Your task to perform on an android device: Add "rayovac triple a" to the cart on newegg Image 0: 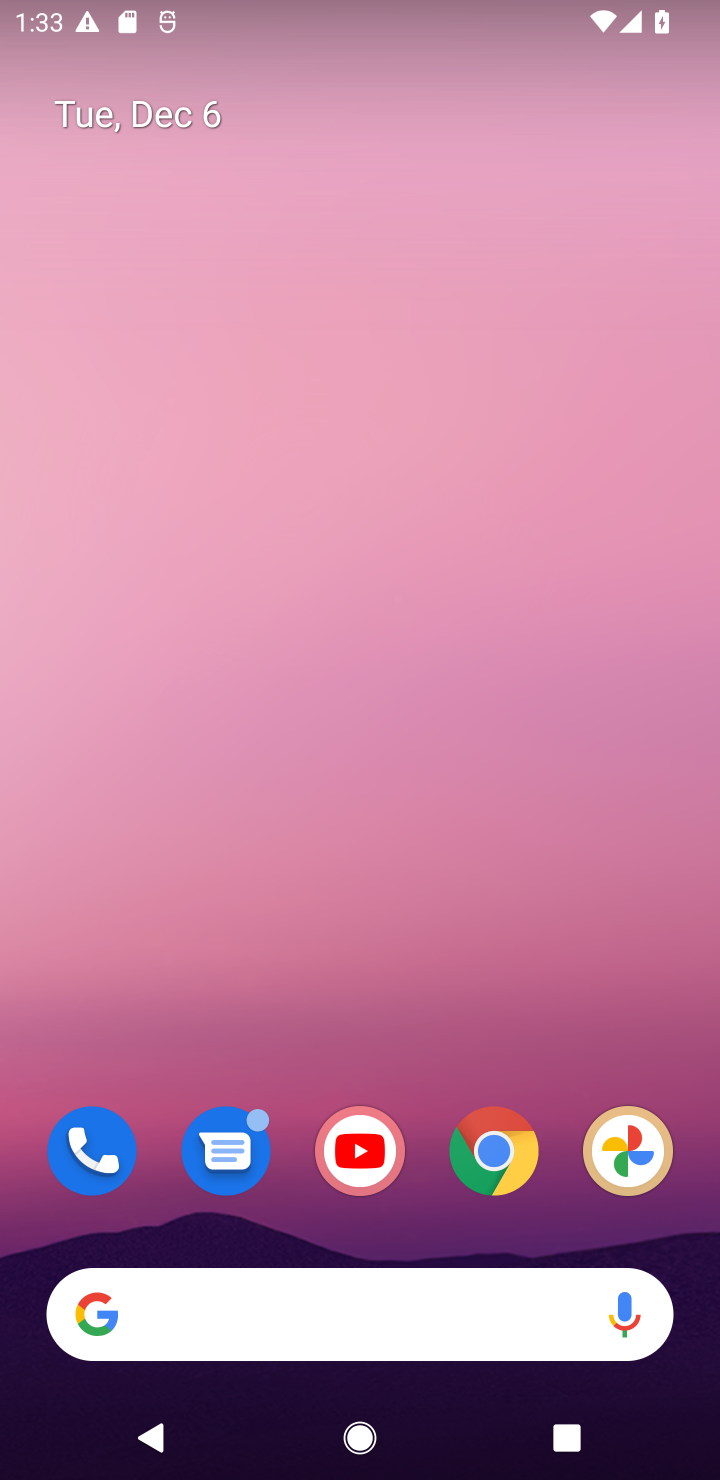
Step 0: click (503, 1140)
Your task to perform on an android device: Add "rayovac triple a" to the cart on newegg Image 1: 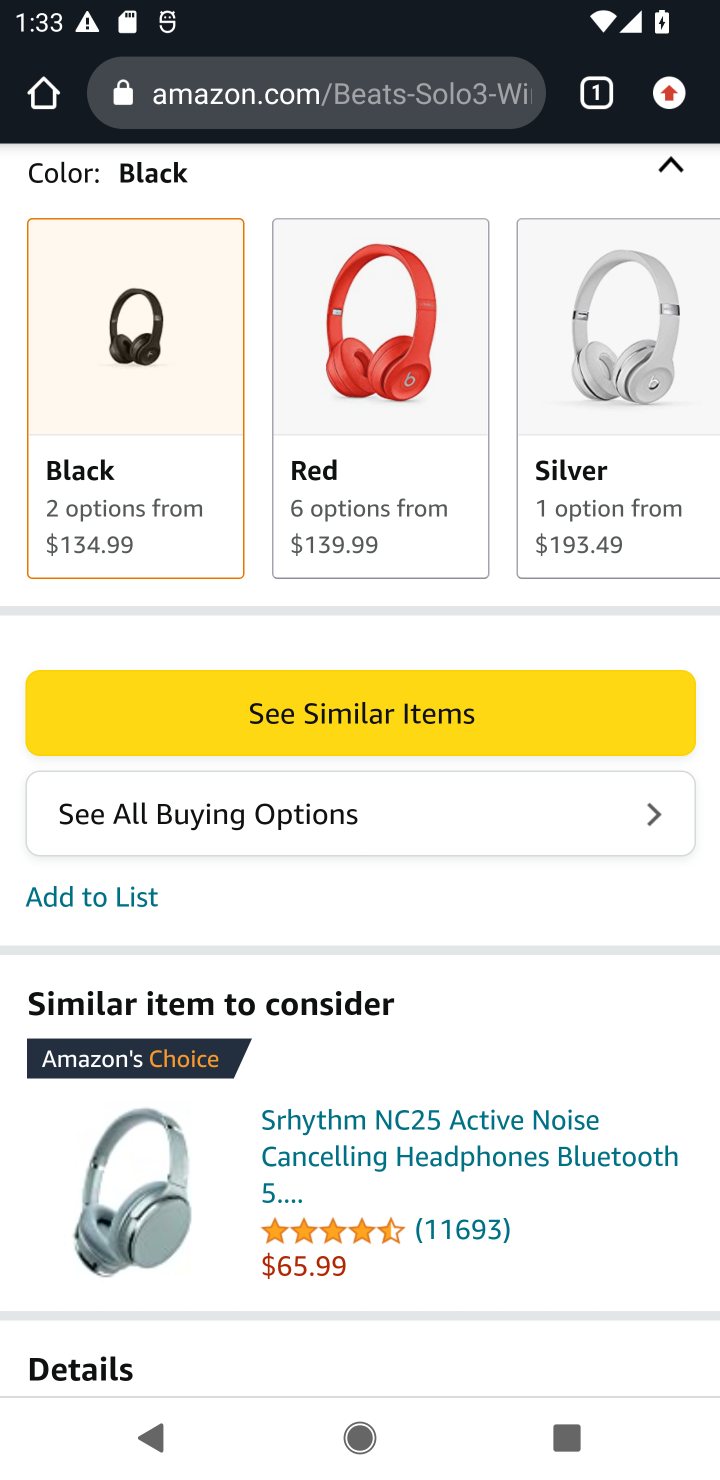
Step 1: click (271, 106)
Your task to perform on an android device: Add "rayovac triple a" to the cart on newegg Image 2: 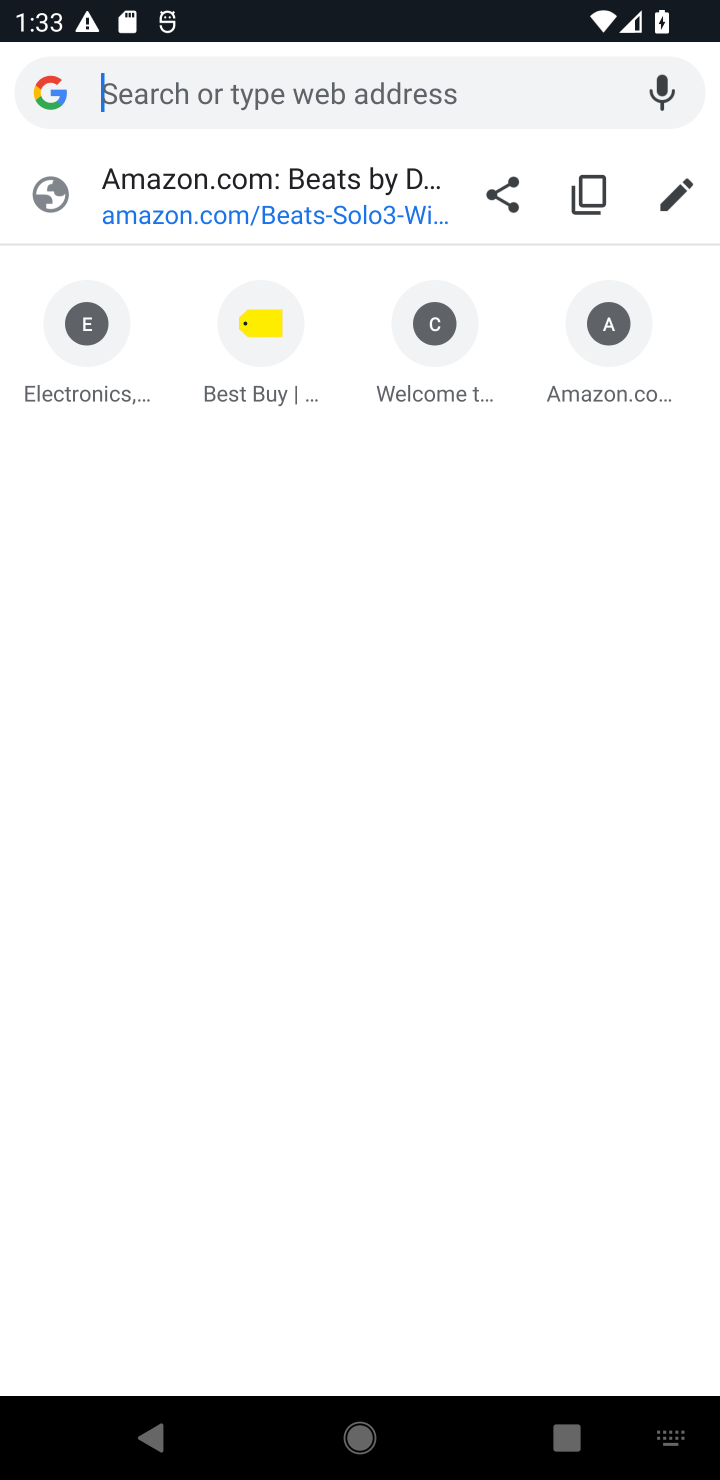
Step 2: type "newegg.com"
Your task to perform on an android device: Add "rayovac triple a" to the cart on newegg Image 3: 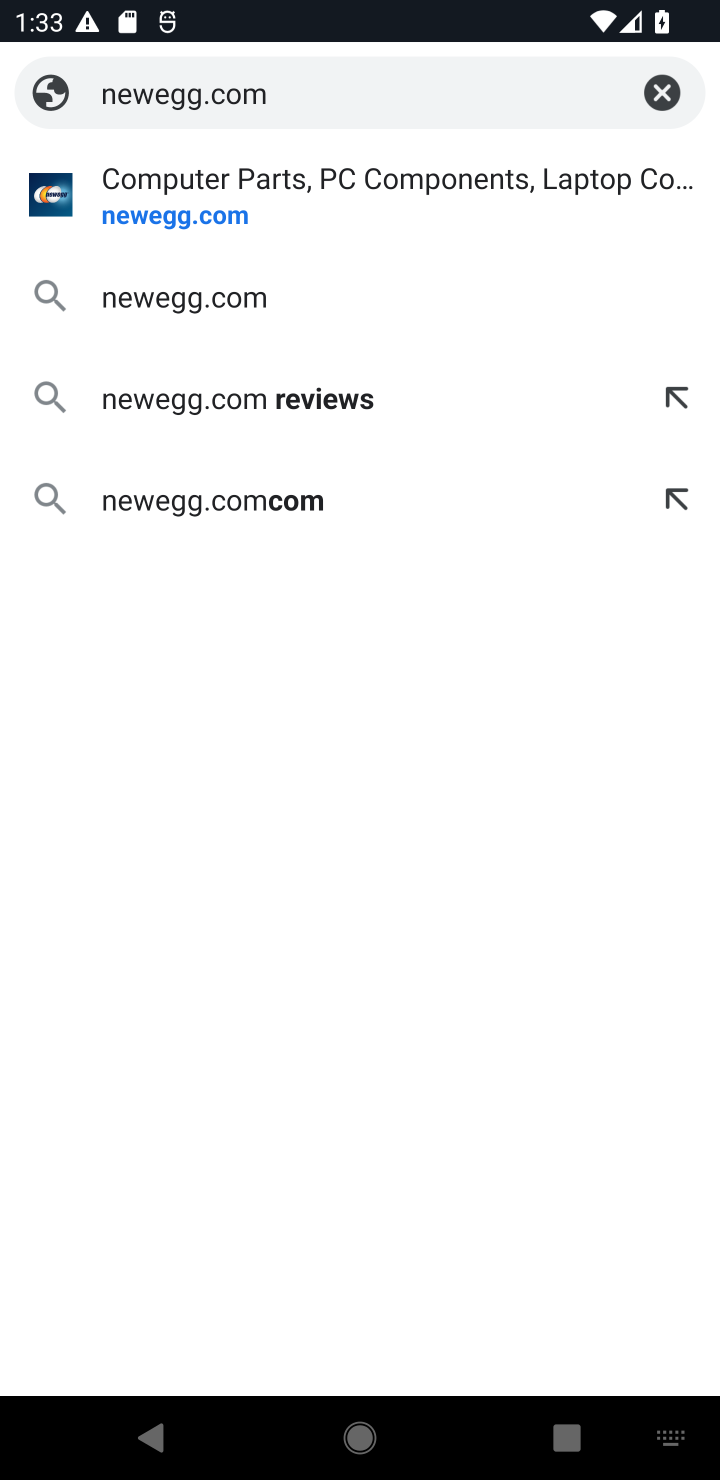
Step 3: click (164, 226)
Your task to perform on an android device: Add "rayovac triple a" to the cart on newegg Image 4: 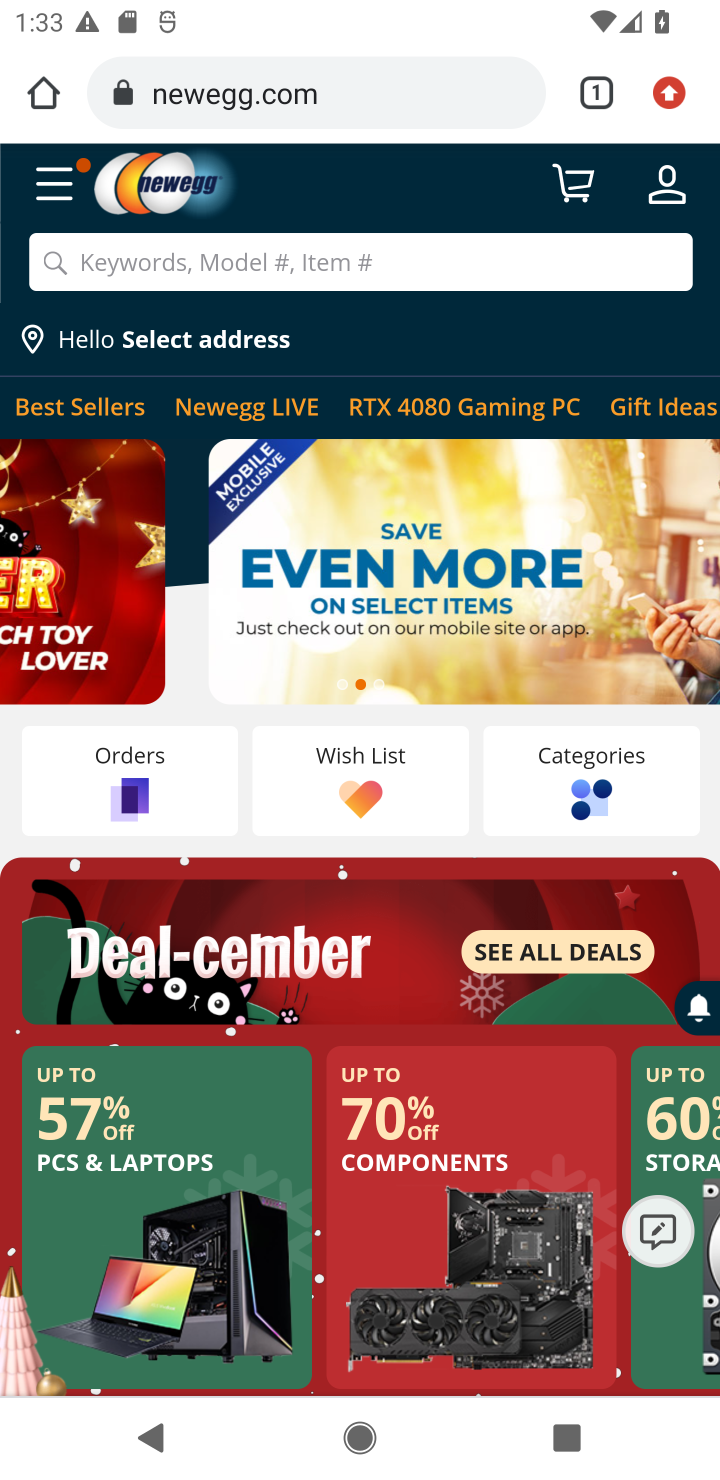
Step 4: click (266, 273)
Your task to perform on an android device: Add "rayovac triple a" to the cart on newegg Image 5: 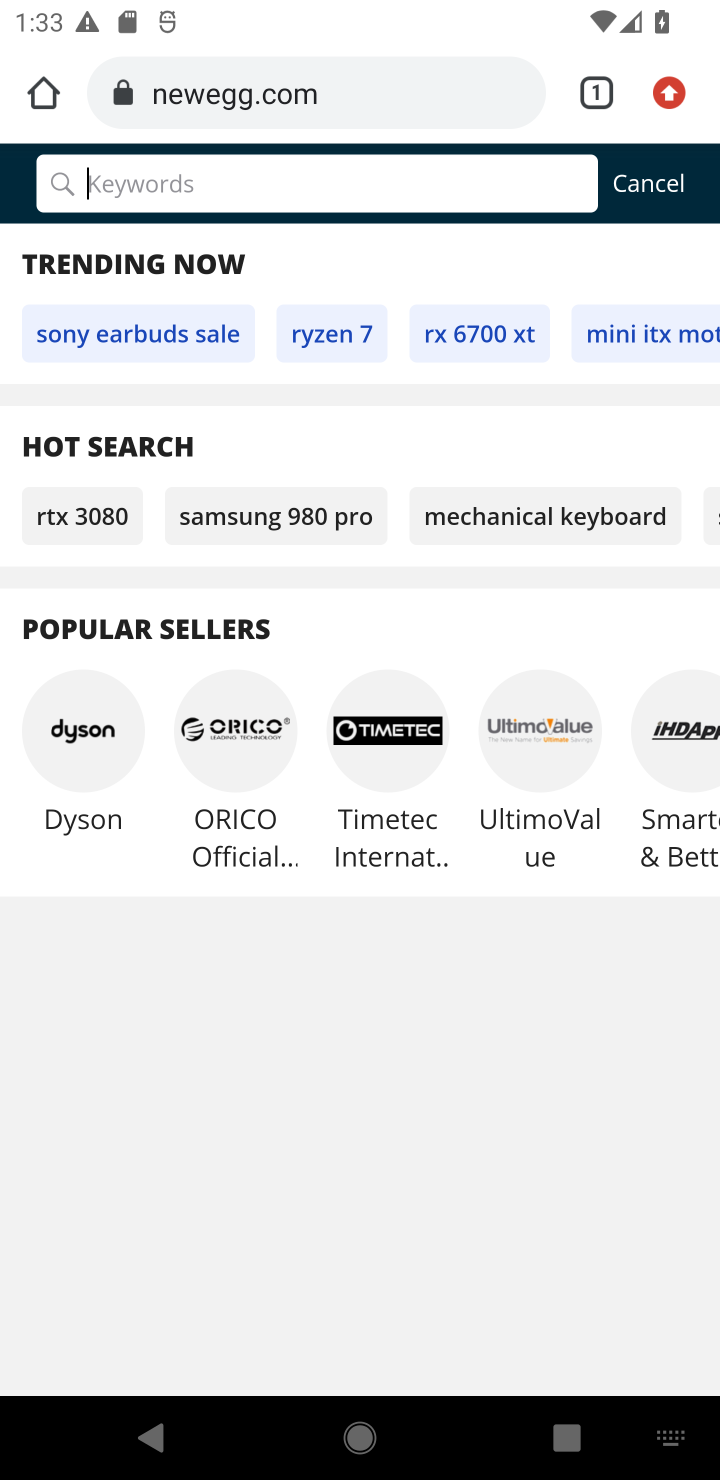
Step 5: type "rayovac triple a"
Your task to perform on an android device: Add "rayovac triple a" to the cart on newegg Image 6: 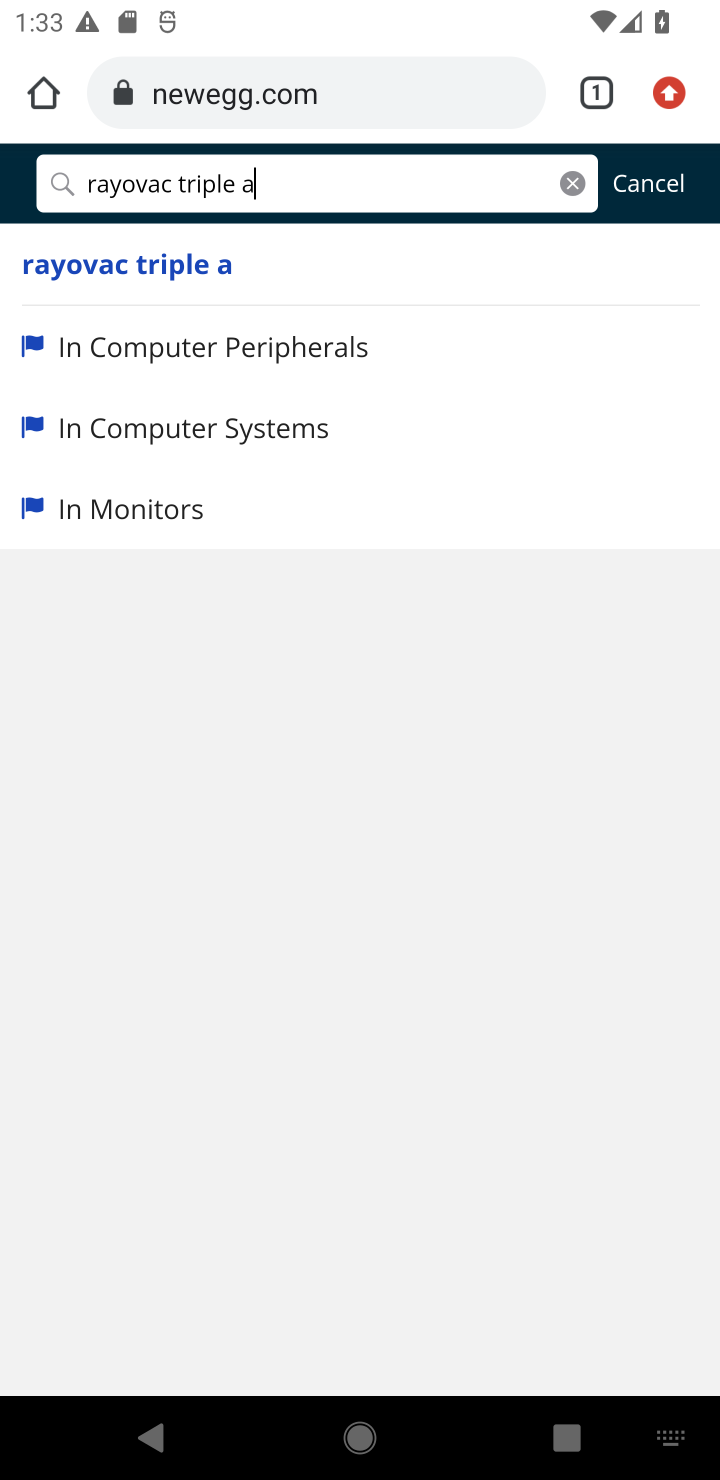
Step 6: click (153, 277)
Your task to perform on an android device: Add "rayovac triple a" to the cart on newegg Image 7: 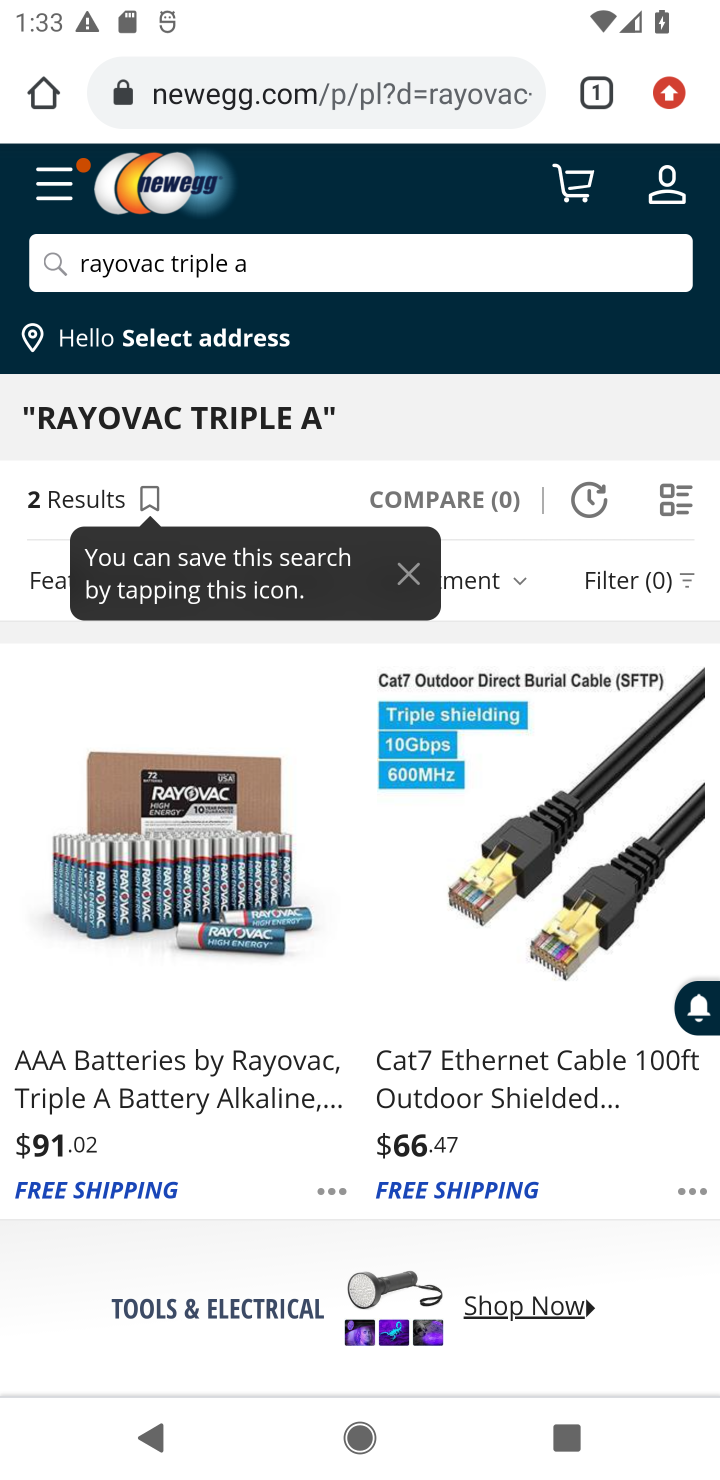
Step 7: drag from (320, 1188) to (343, 637)
Your task to perform on an android device: Add "rayovac triple a" to the cart on newegg Image 8: 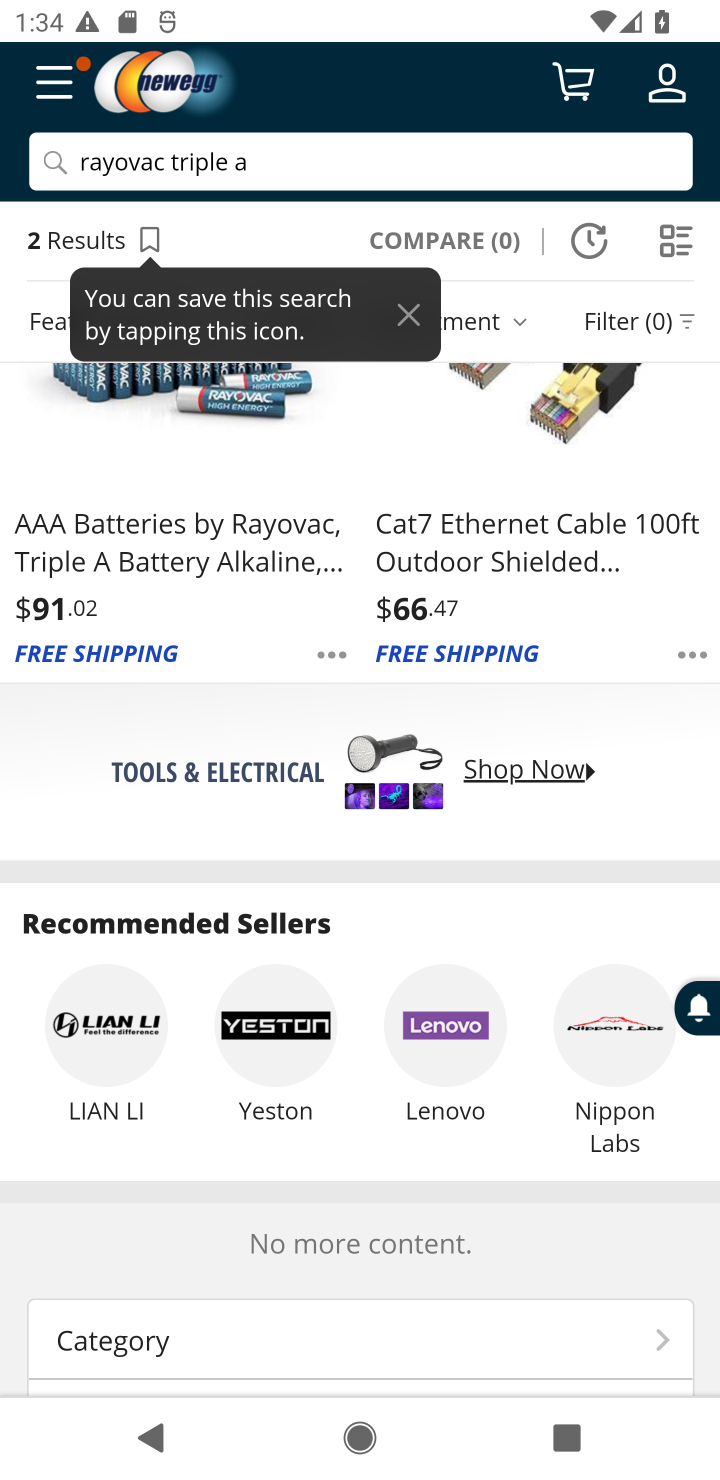
Step 8: drag from (189, 585) to (178, 819)
Your task to perform on an android device: Add "rayovac triple a" to the cart on newegg Image 9: 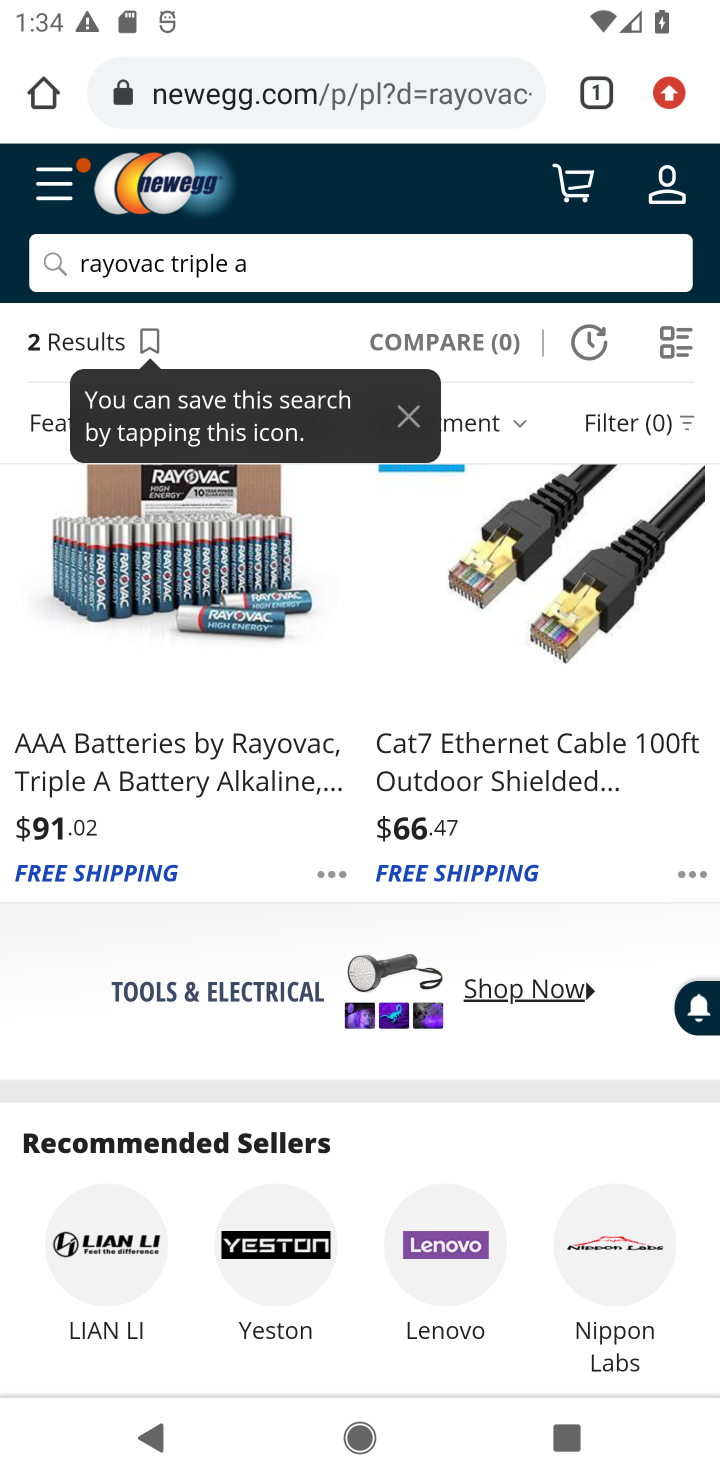
Step 9: click (153, 763)
Your task to perform on an android device: Add "rayovac triple a" to the cart on newegg Image 10: 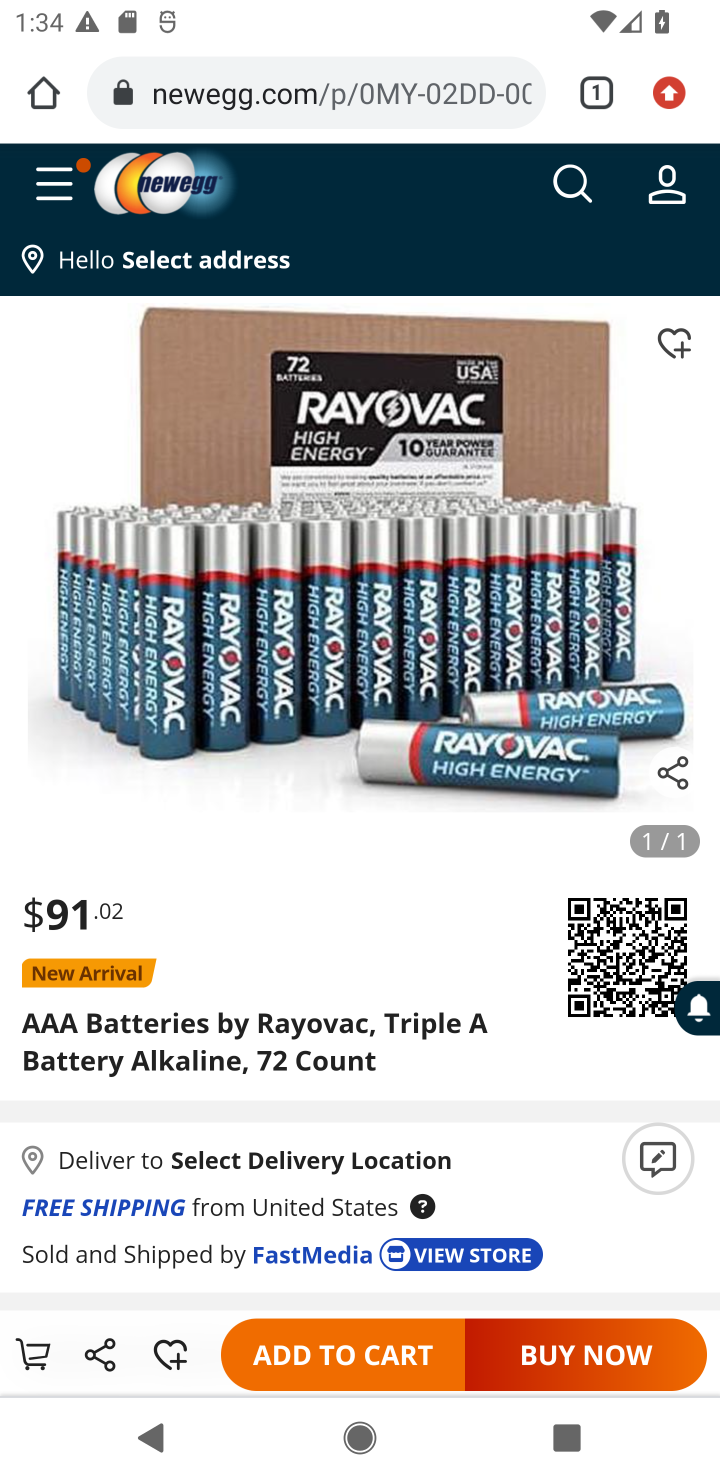
Step 10: drag from (293, 873) to (287, 583)
Your task to perform on an android device: Add "rayovac triple a" to the cart on newegg Image 11: 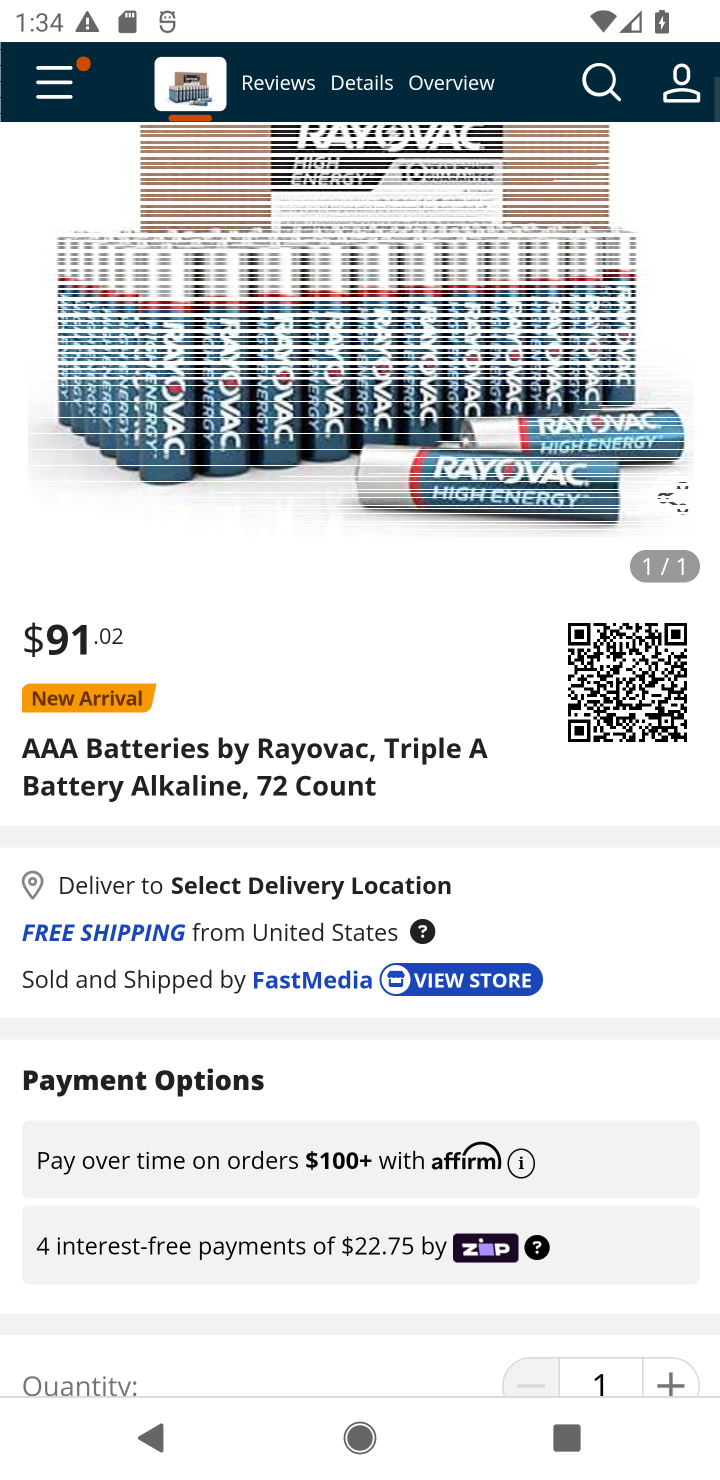
Step 11: click (295, 1330)
Your task to perform on an android device: Add "rayovac triple a" to the cart on newegg Image 12: 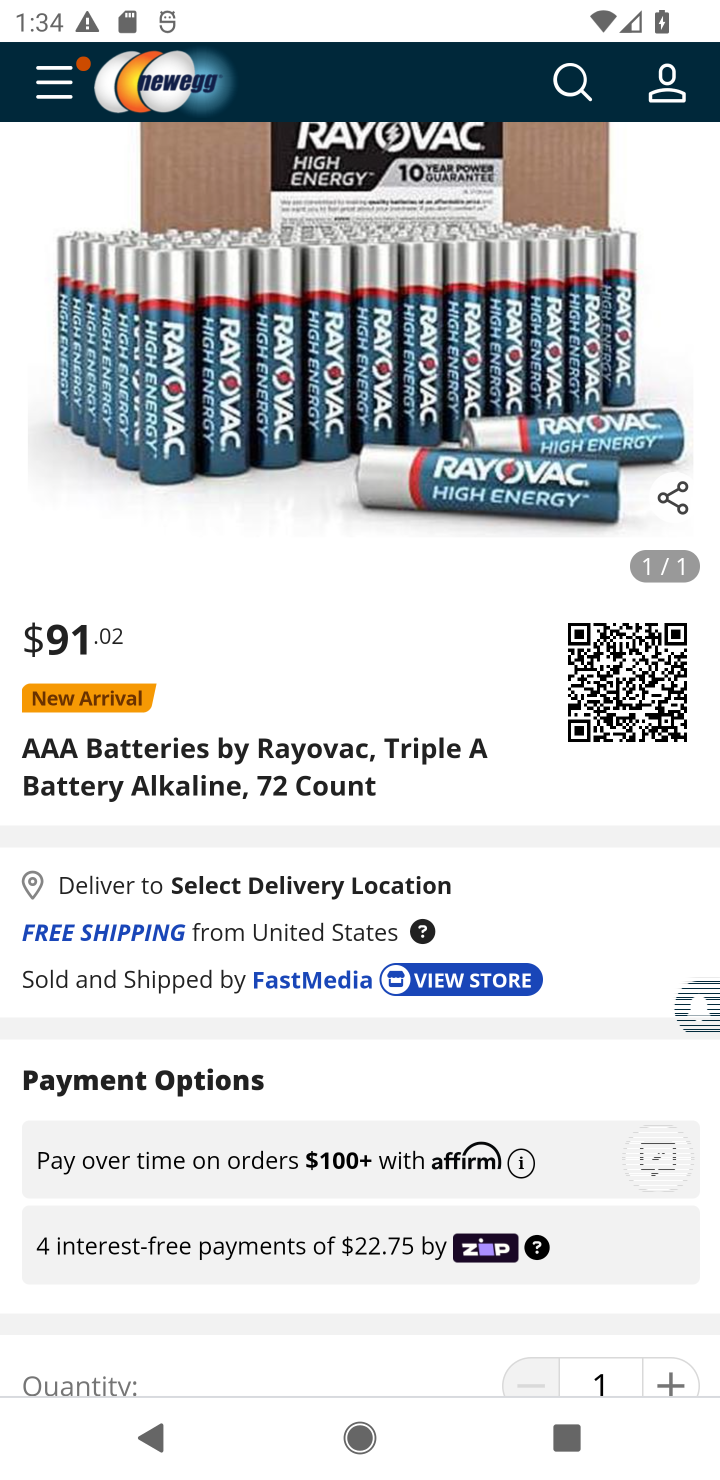
Step 12: task complete